Your task to perform on an android device: turn on translation in the chrome app Image 0: 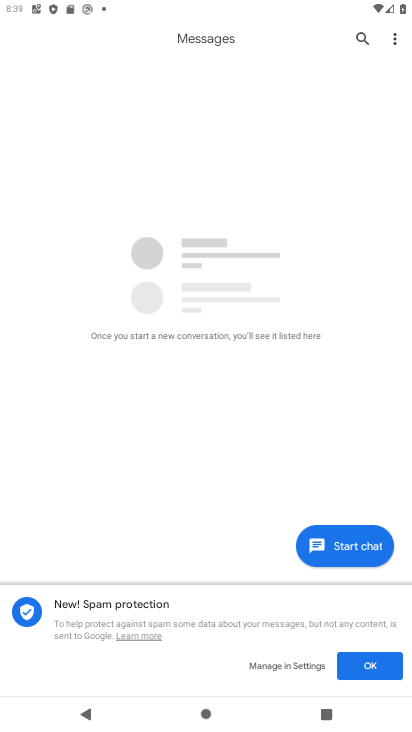
Step 0: press back button
Your task to perform on an android device: turn on translation in the chrome app Image 1: 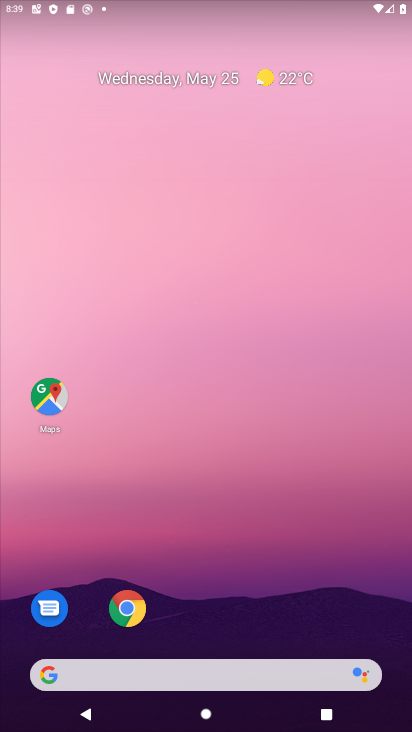
Step 1: click (128, 611)
Your task to perform on an android device: turn on translation in the chrome app Image 2: 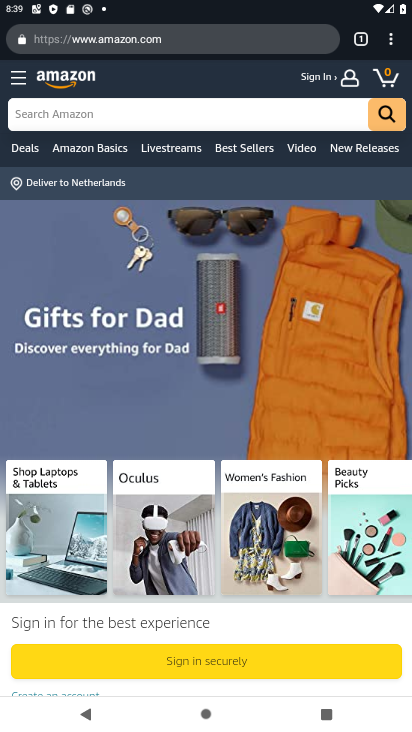
Step 2: click (128, 611)
Your task to perform on an android device: turn on translation in the chrome app Image 3: 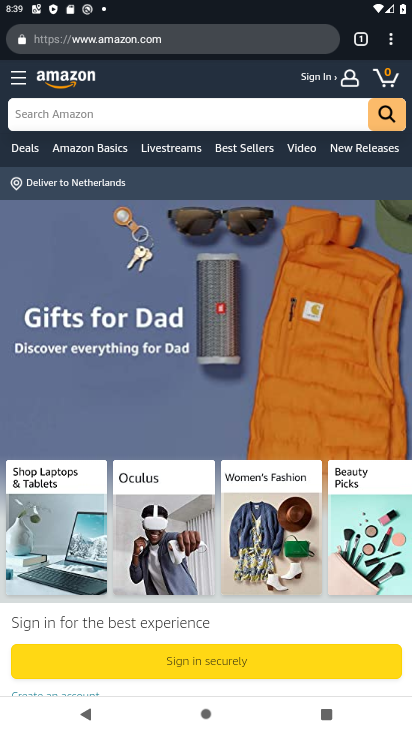
Step 3: click (128, 611)
Your task to perform on an android device: turn on translation in the chrome app Image 4: 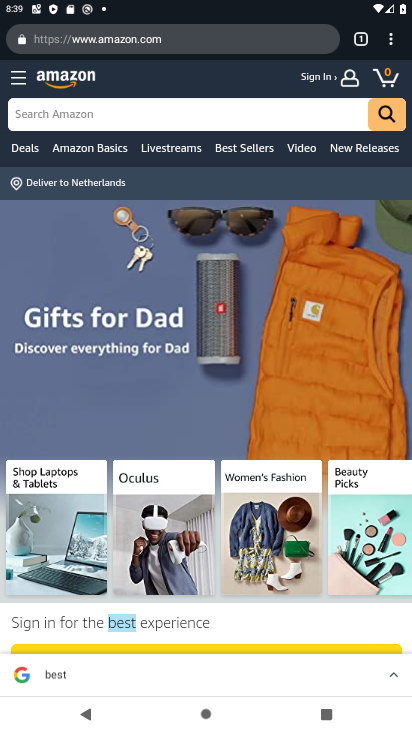
Step 4: click (393, 43)
Your task to perform on an android device: turn on translation in the chrome app Image 5: 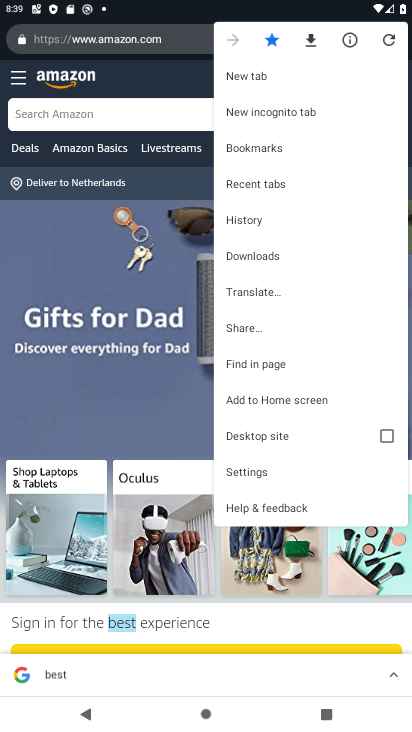
Step 5: click (260, 471)
Your task to perform on an android device: turn on translation in the chrome app Image 6: 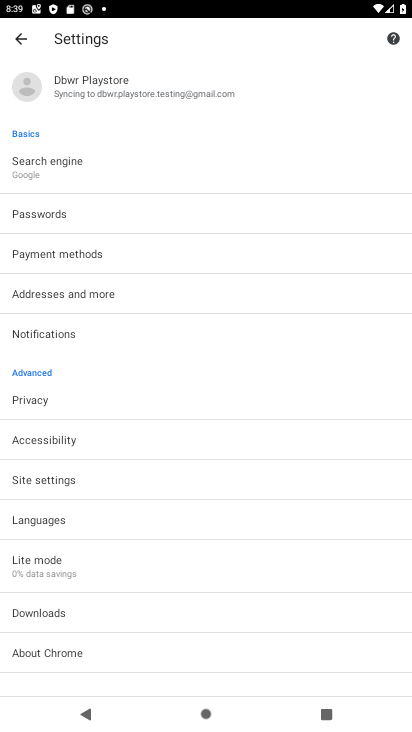
Step 6: drag from (123, 625) to (203, 535)
Your task to perform on an android device: turn on translation in the chrome app Image 7: 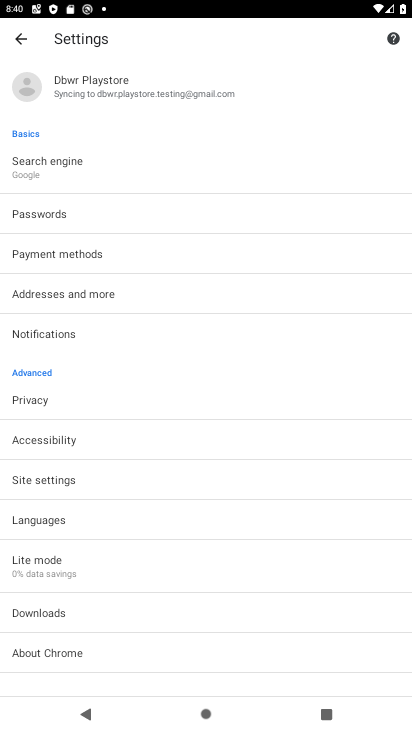
Step 7: click (50, 519)
Your task to perform on an android device: turn on translation in the chrome app Image 8: 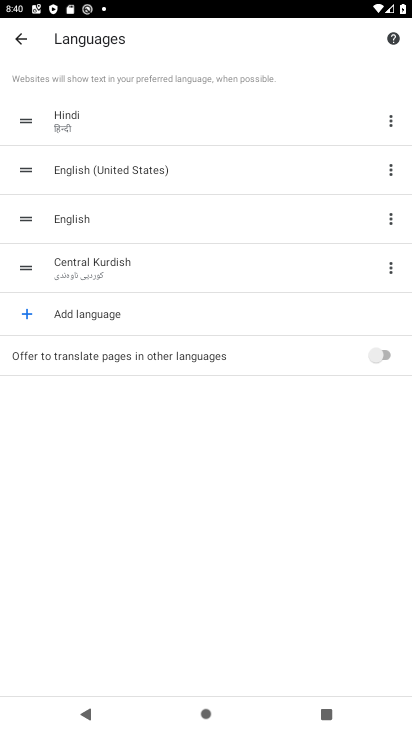
Step 8: click (383, 357)
Your task to perform on an android device: turn on translation in the chrome app Image 9: 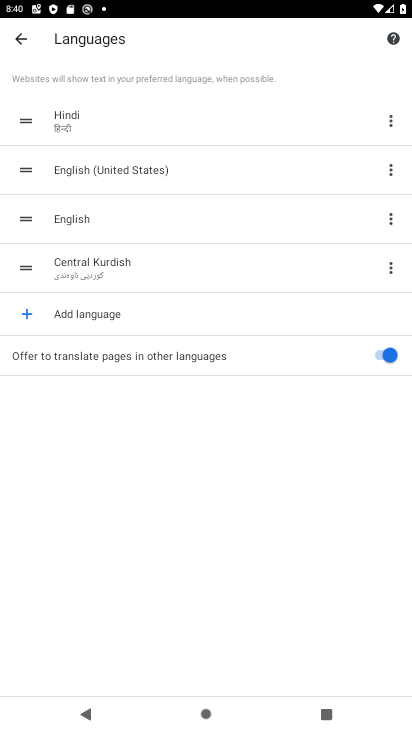
Step 9: task complete